Your task to perform on an android device: Go to Maps Image 0: 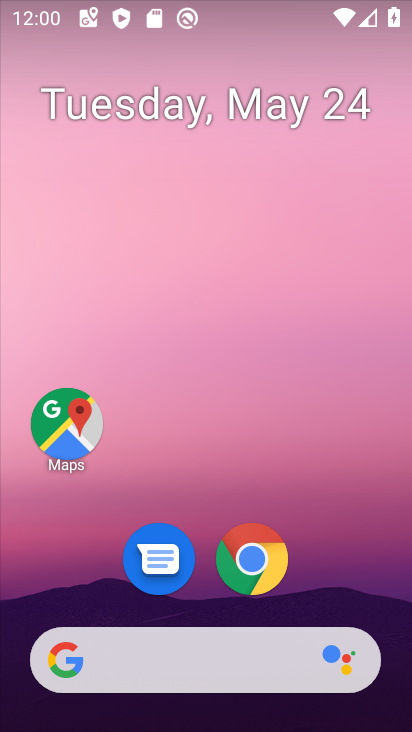
Step 0: drag from (326, 594) to (198, 104)
Your task to perform on an android device: Go to Maps Image 1: 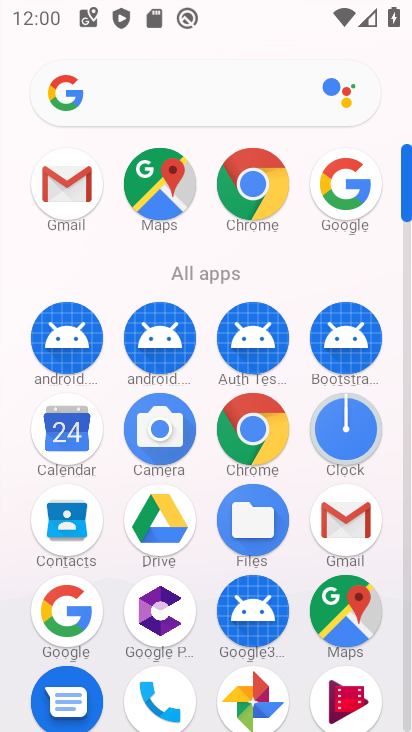
Step 1: click (162, 182)
Your task to perform on an android device: Go to Maps Image 2: 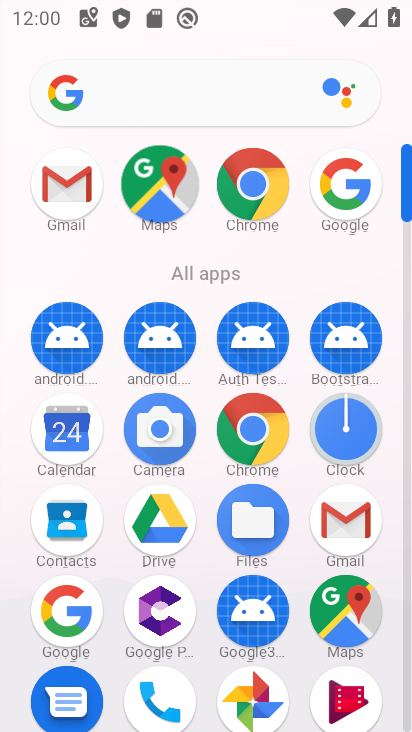
Step 2: click (162, 182)
Your task to perform on an android device: Go to Maps Image 3: 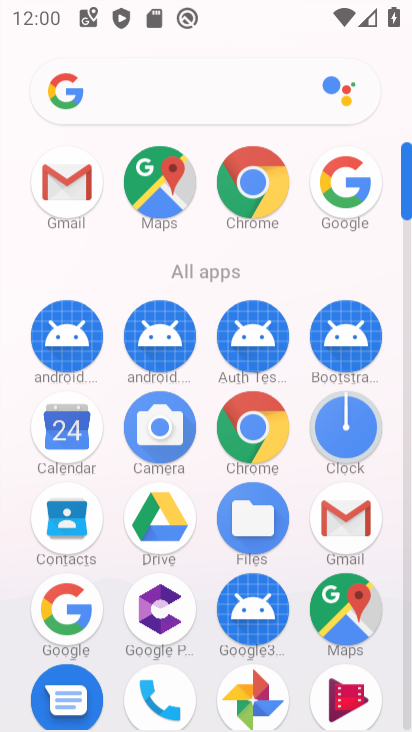
Step 3: click (162, 182)
Your task to perform on an android device: Go to Maps Image 4: 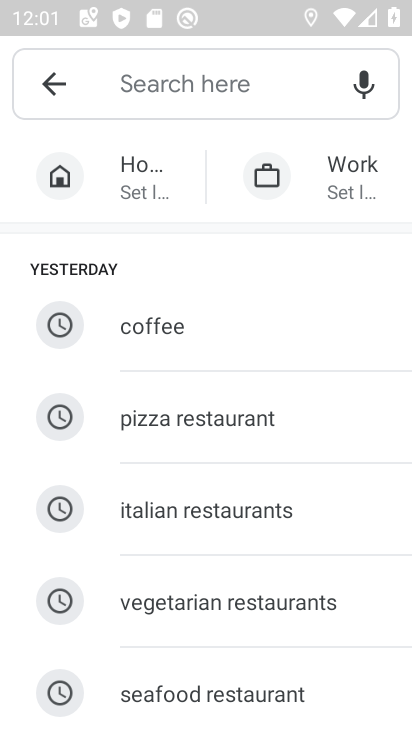
Step 4: click (55, 80)
Your task to perform on an android device: Go to Maps Image 5: 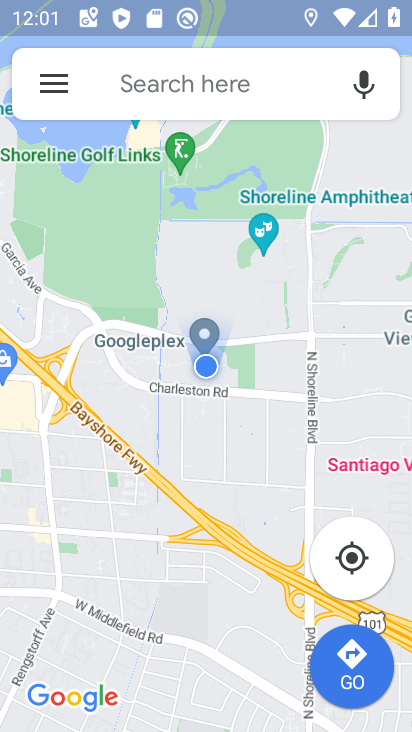
Step 5: click (117, 85)
Your task to perform on an android device: Go to Maps Image 6: 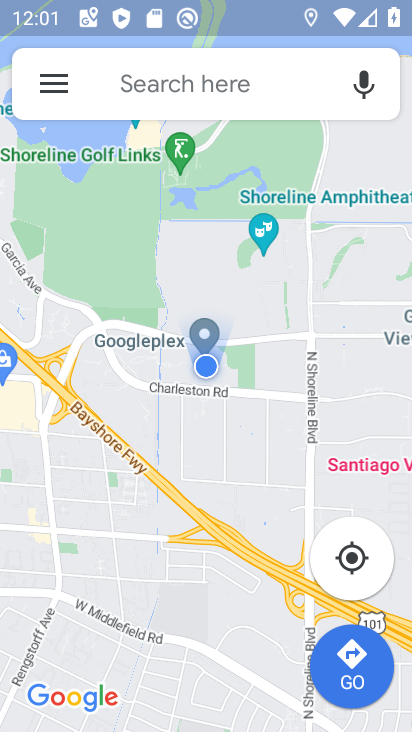
Step 6: click (119, 82)
Your task to perform on an android device: Go to Maps Image 7: 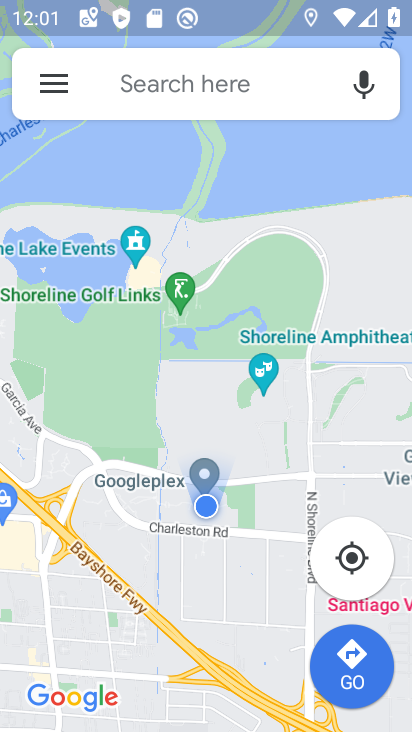
Step 7: task complete